Your task to perform on an android device: change text size in settings app Image 0: 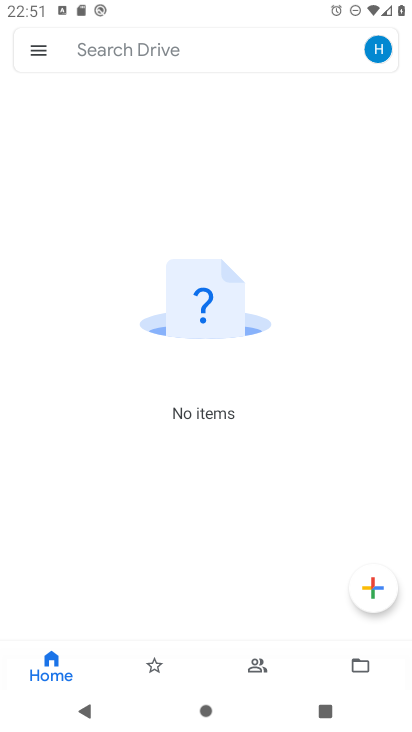
Step 0: press home button
Your task to perform on an android device: change text size in settings app Image 1: 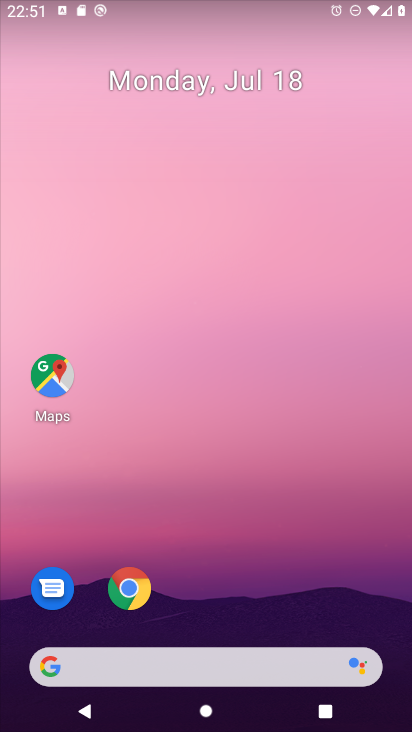
Step 1: drag from (384, 626) to (338, 81)
Your task to perform on an android device: change text size in settings app Image 2: 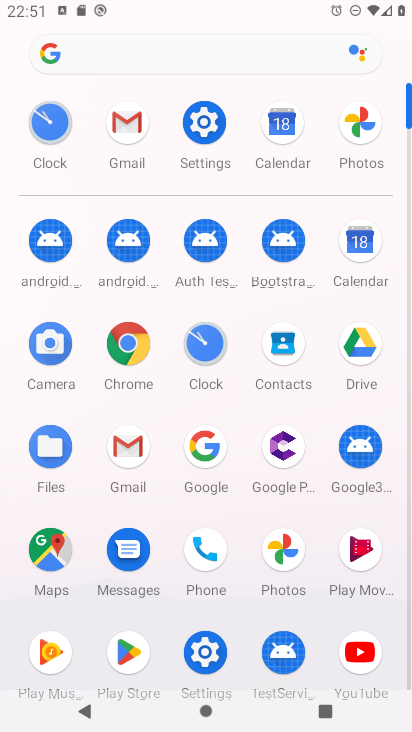
Step 2: click (204, 654)
Your task to perform on an android device: change text size in settings app Image 3: 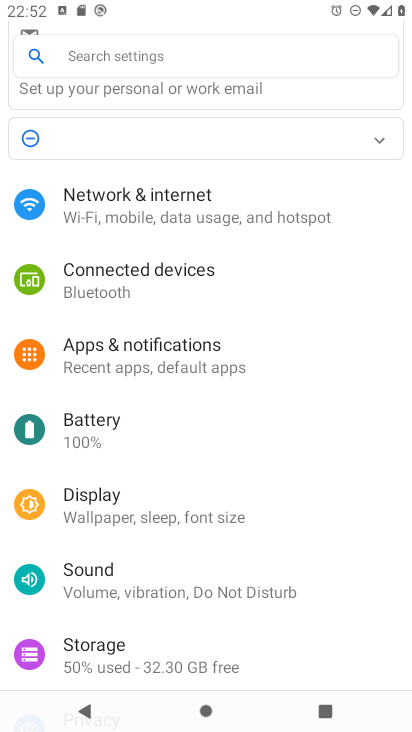
Step 3: click (114, 510)
Your task to perform on an android device: change text size in settings app Image 4: 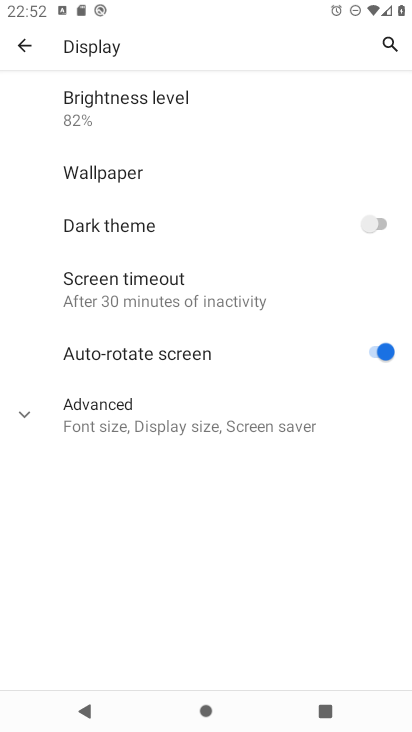
Step 4: click (22, 410)
Your task to perform on an android device: change text size in settings app Image 5: 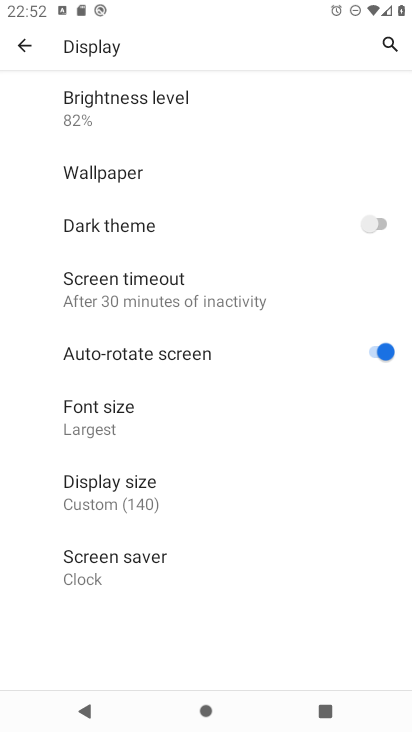
Step 5: click (91, 424)
Your task to perform on an android device: change text size in settings app Image 6: 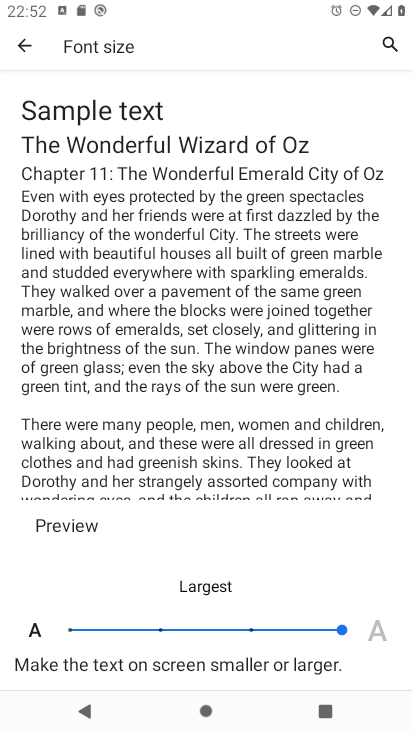
Step 6: click (249, 631)
Your task to perform on an android device: change text size in settings app Image 7: 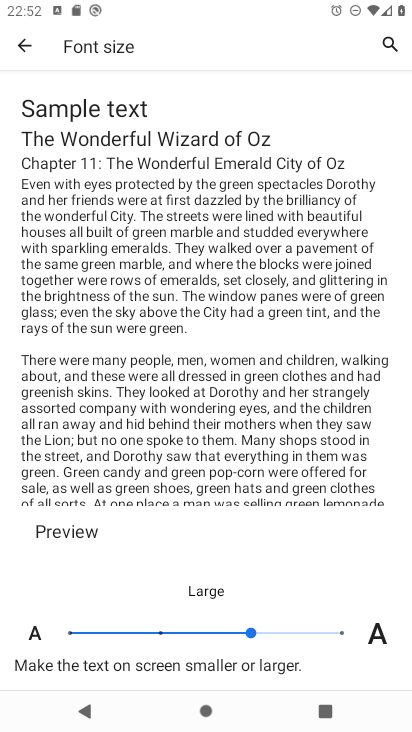
Step 7: task complete